Your task to perform on an android device: Search for pizza restaurants on Maps Image 0: 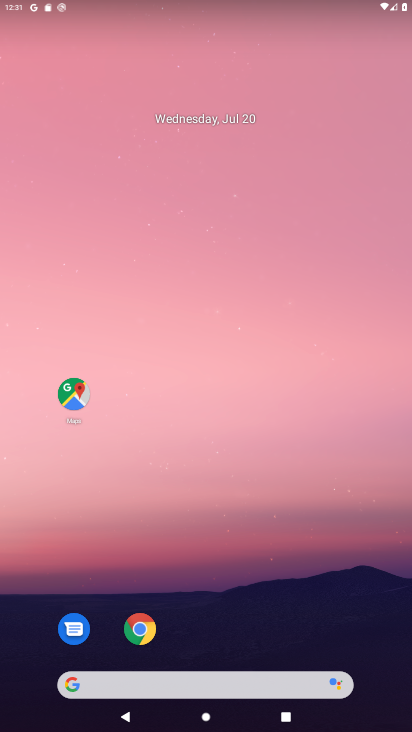
Step 0: drag from (286, 627) to (211, 118)
Your task to perform on an android device: Search for pizza restaurants on Maps Image 1: 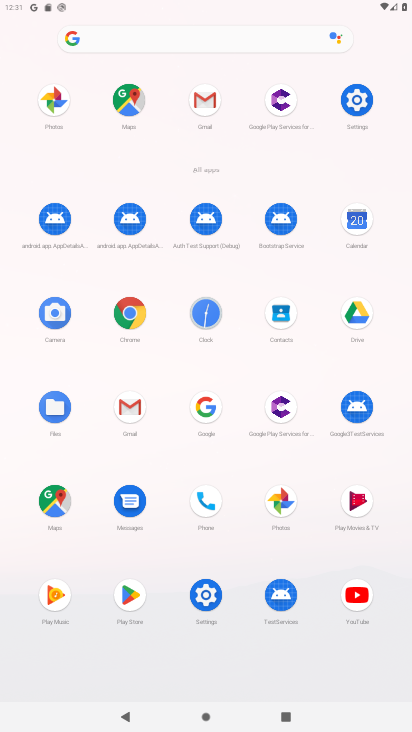
Step 1: click (131, 106)
Your task to perform on an android device: Search for pizza restaurants on Maps Image 2: 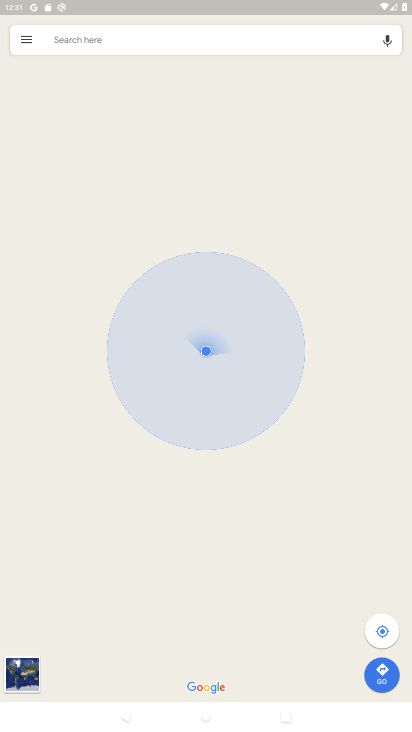
Step 2: click (127, 34)
Your task to perform on an android device: Search for pizza restaurants on Maps Image 3: 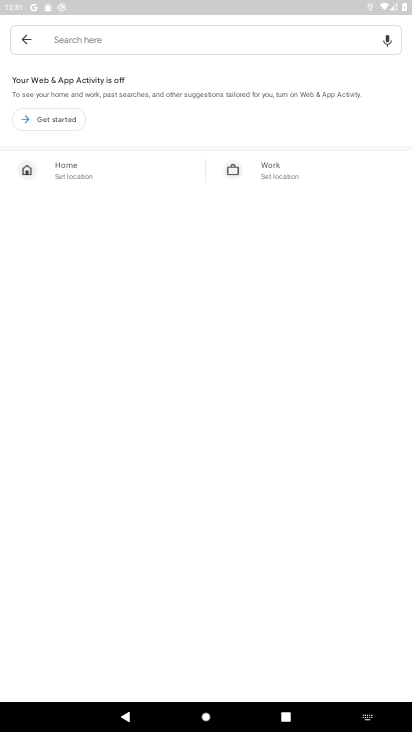
Step 3: click (162, 29)
Your task to perform on an android device: Search for pizza restaurants on Maps Image 4: 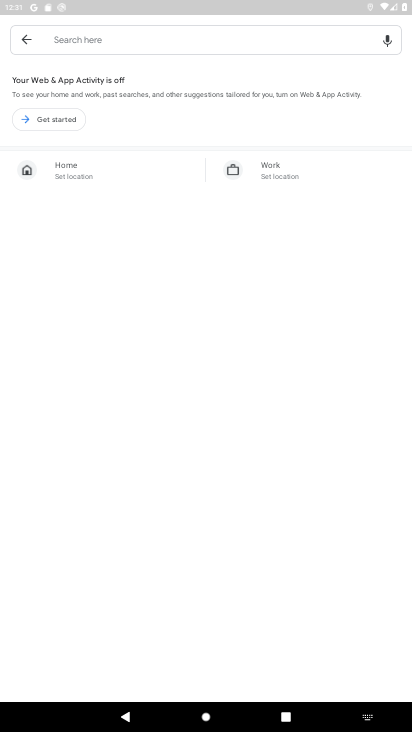
Step 4: type "pizza restaurants"
Your task to perform on an android device: Search for pizza restaurants on Maps Image 5: 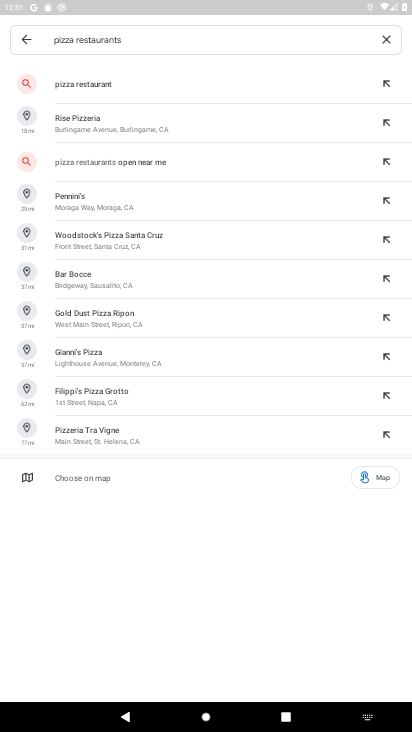
Step 5: click (216, 84)
Your task to perform on an android device: Search for pizza restaurants on Maps Image 6: 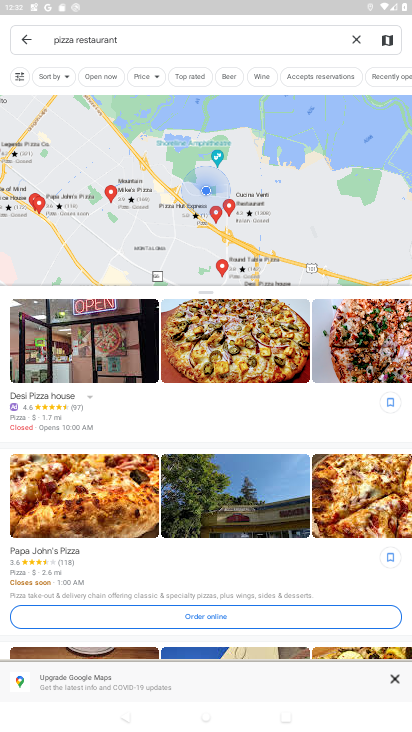
Step 6: task complete